Your task to perform on an android device: delete a single message in the gmail app Image 0: 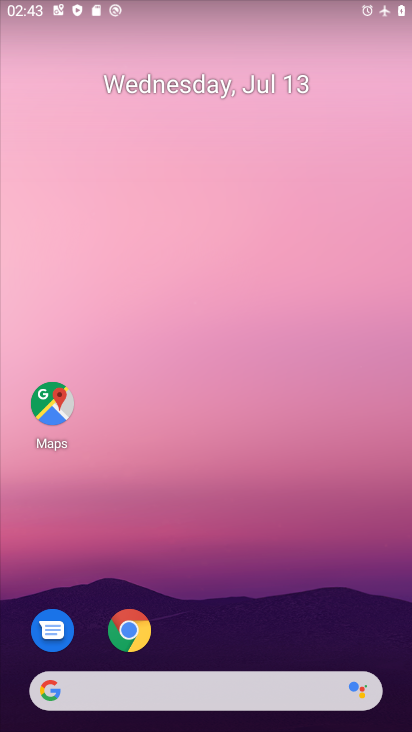
Step 0: drag from (197, 649) to (154, 197)
Your task to perform on an android device: delete a single message in the gmail app Image 1: 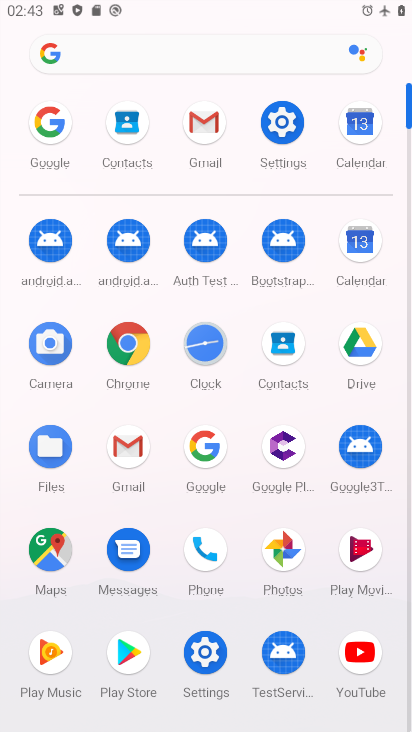
Step 1: click (201, 133)
Your task to perform on an android device: delete a single message in the gmail app Image 2: 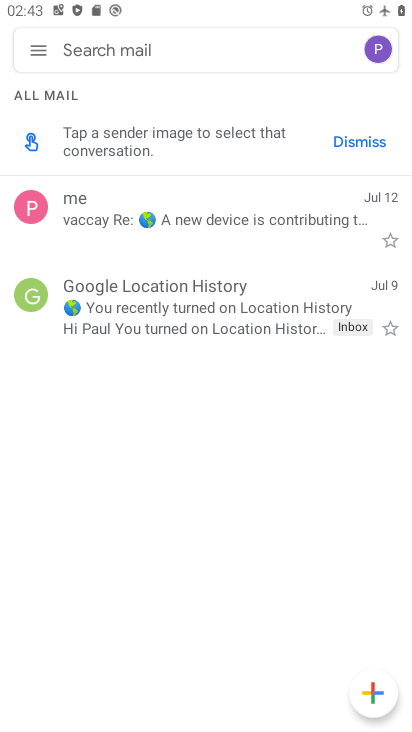
Step 2: click (207, 218)
Your task to perform on an android device: delete a single message in the gmail app Image 3: 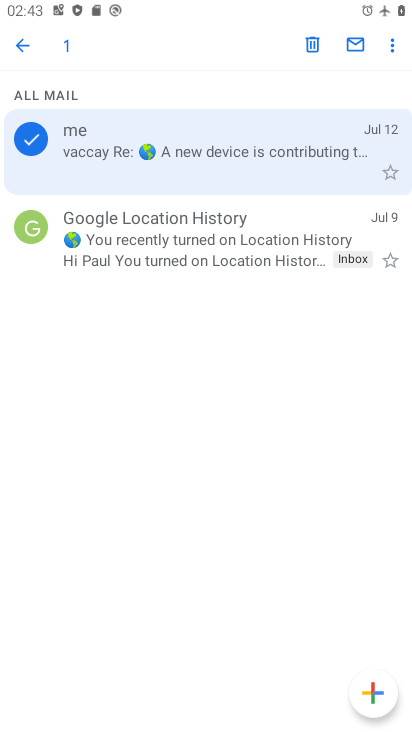
Step 3: click (314, 43)
Your task to perform on an android device: delete a single message in the gmail app Image 4: 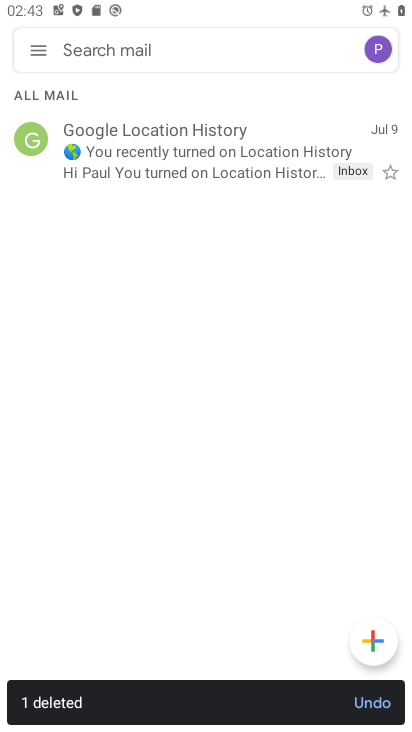
Step 4: task complete